Your task to perform on an android device: Open notification settings Image 0: 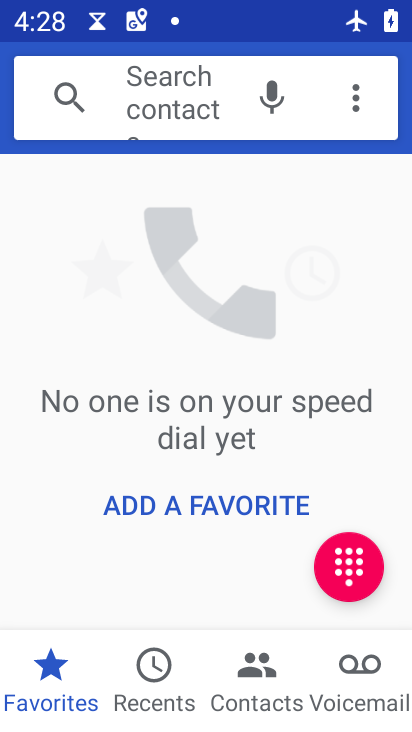
Step 0: drag from (324, 507) to (282, 30)
Your task to perform on an android device: Open notification settings Image 1: 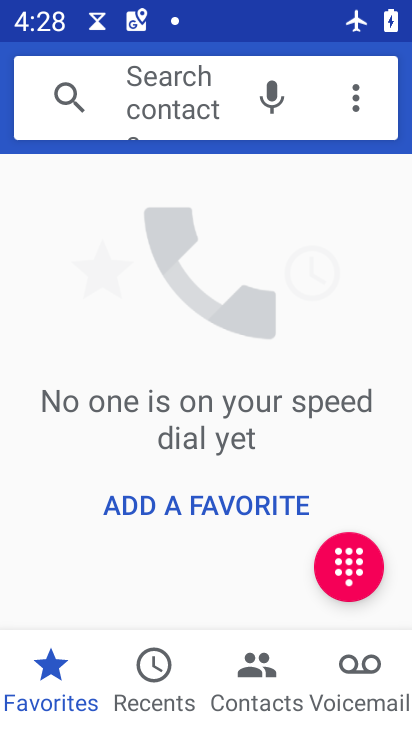
Step 1: press home button
Your task to perform on an android device: Open notification settings Image 2: 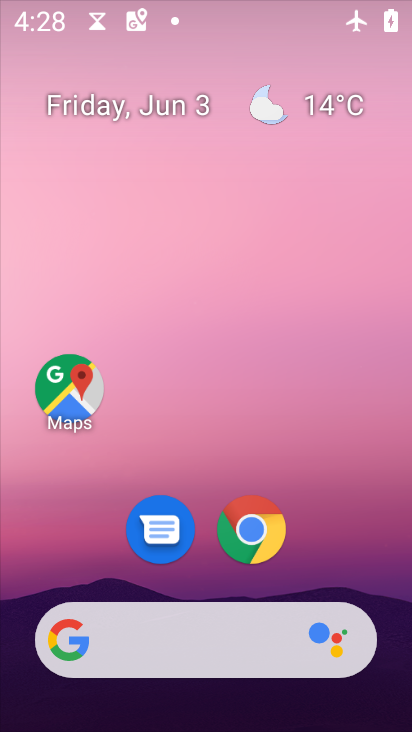
Step 2: drag from (332, 567) to (319, 3)
Your task to perform on an android device: Open notification settings Image 3: 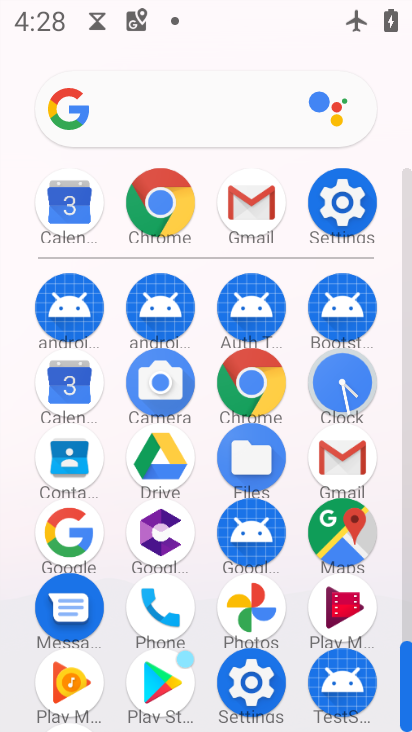
Step 3: click (318, 209)
Your task to perform on an android device: Open notification settings Image 4: 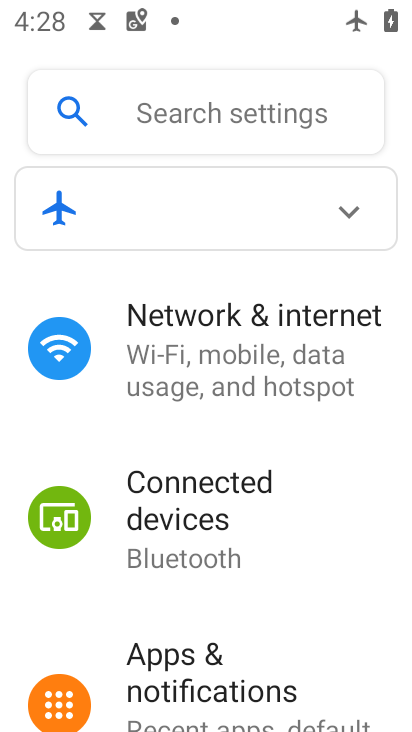
Step 4: drag from (192, 618) to (216, 197)
Your task to perform on an android device: Open notification settings Image 5: 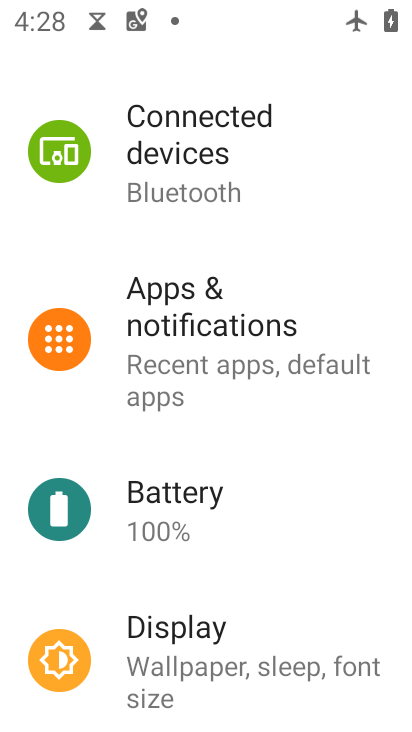
Step 5: click (204, 300)
Your task to perform on an android device: Open notification settings Image 6: 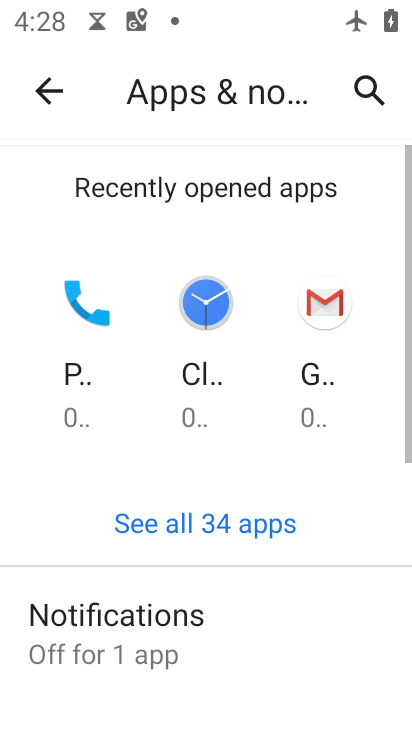
Step 6: click (80, 642)
Your task to perform on an android device: Open notification settings Image 7: 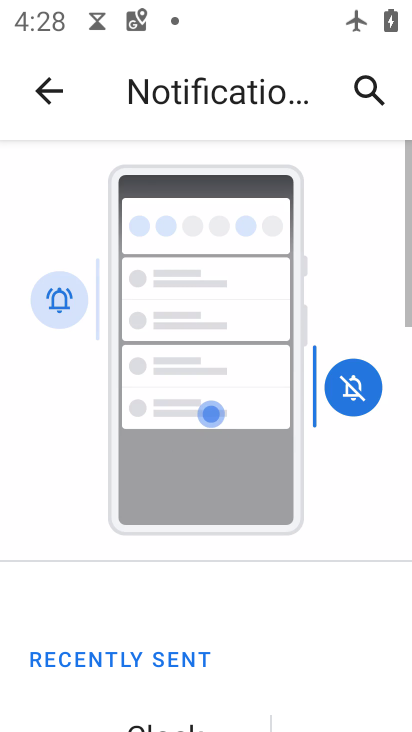
Step 7: task complete